Your task to perform on an android device: open app "Paramount+ | Peak Streaming" (install if not already installed) Image 0: 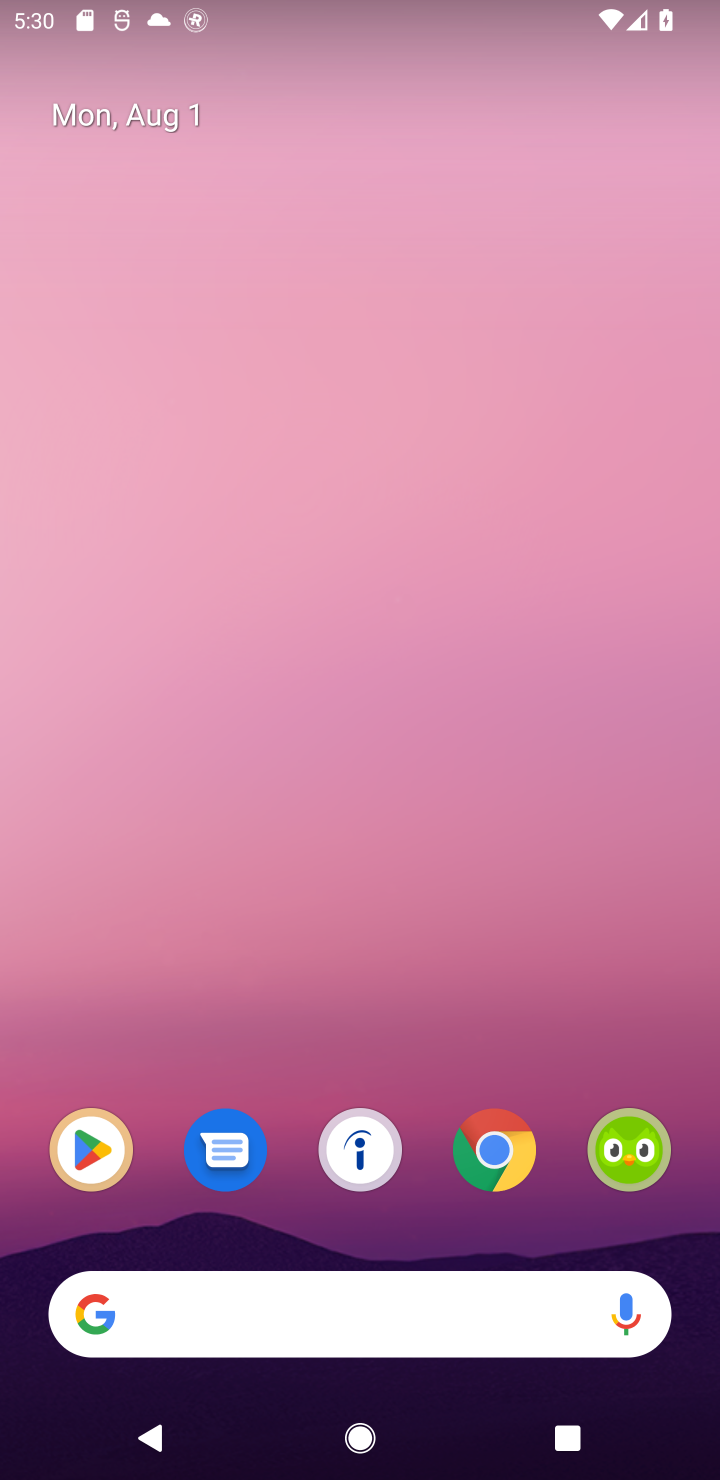
Step 0: click (112, 1161)
Your task to perform on an android device: open app "Paramount+ | Peak Streaming" (install if not already installed) Image 1: 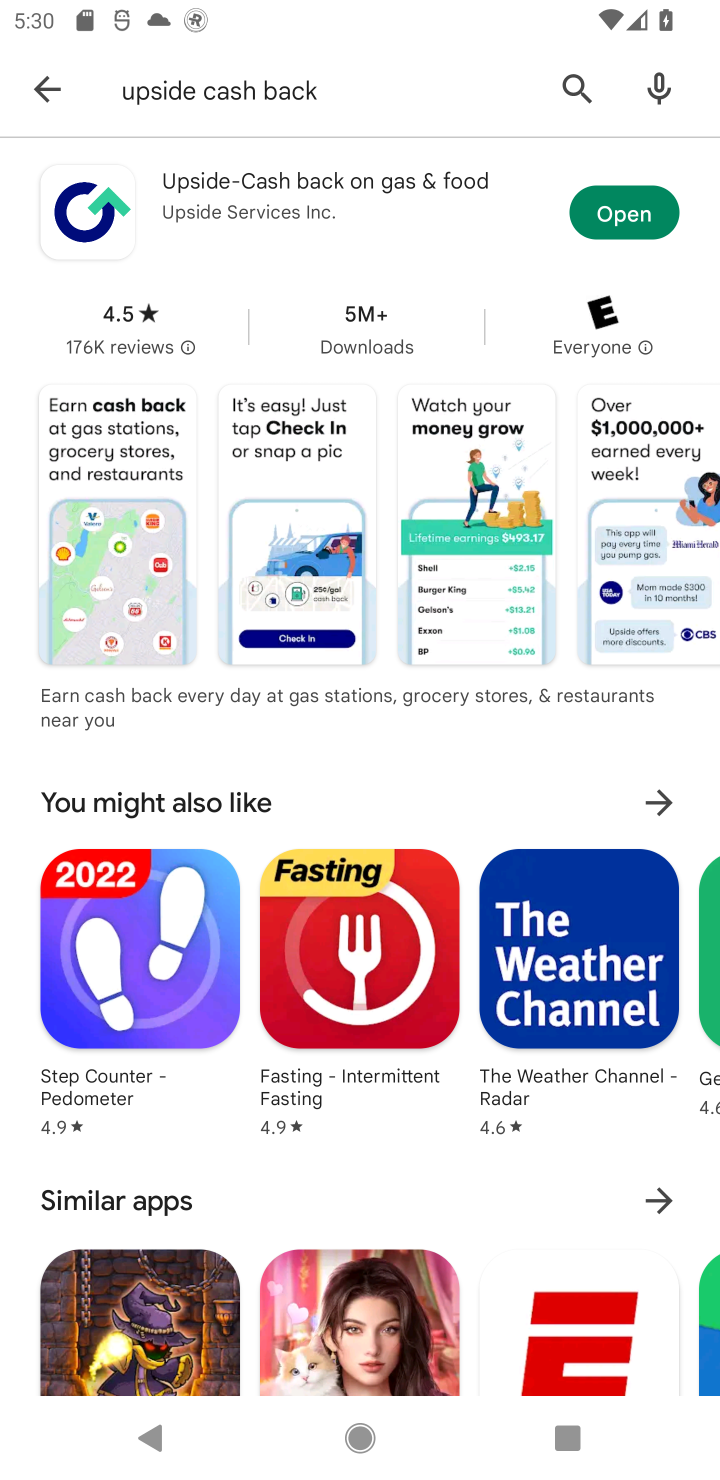
Step 1: click (561, 93)
Your task to perform on an android device: open app "Paramount+ | Peak Streaming" (install if not already installed) Image 2: 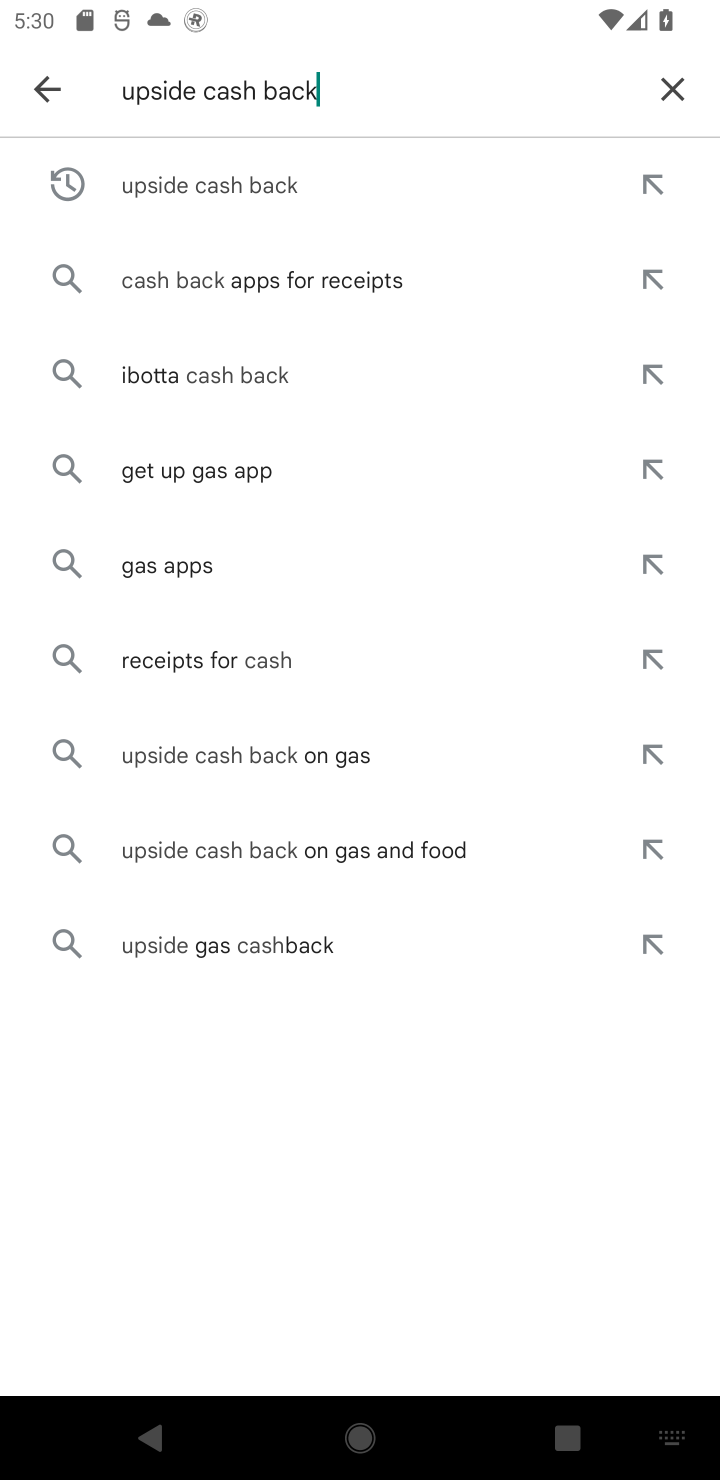
Step 2: task complete